Your task to perform on an android device: Do I have any events this weekend? Image 0: 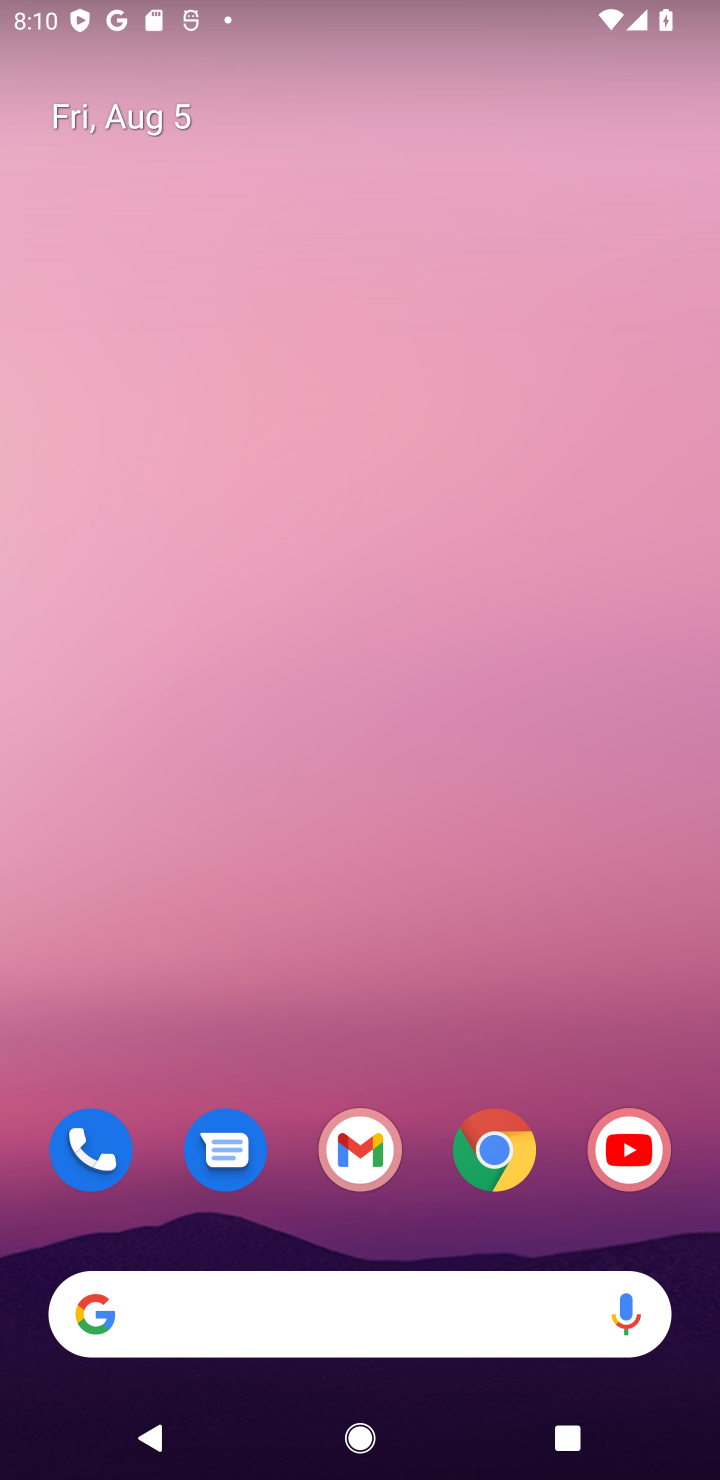
Step 0: press home button
Your task to perform on an android device: Do I have any events this weekend? Image 1: 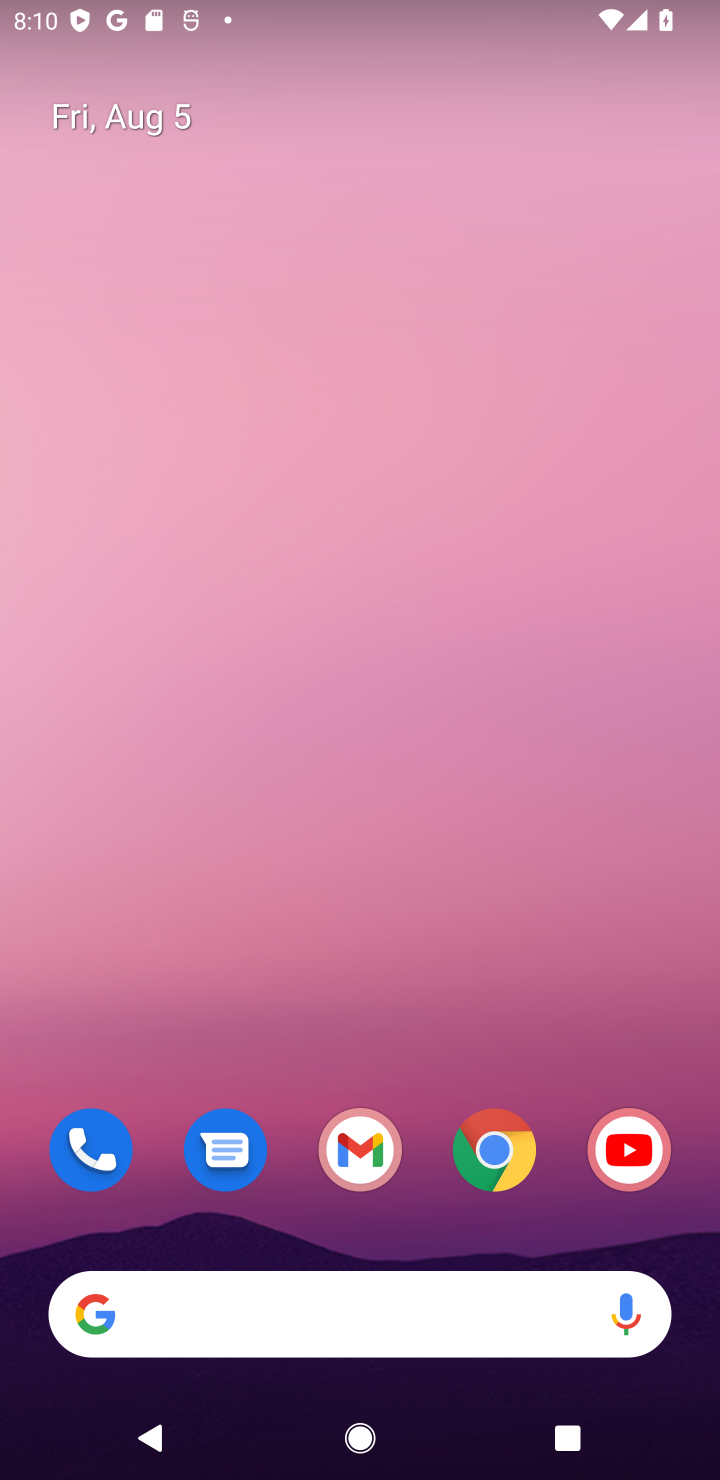
Step 1: drag from (428, 984) to (434, 257)
Your task to perform on an android device: Do I have any events this weekend? Image 2: 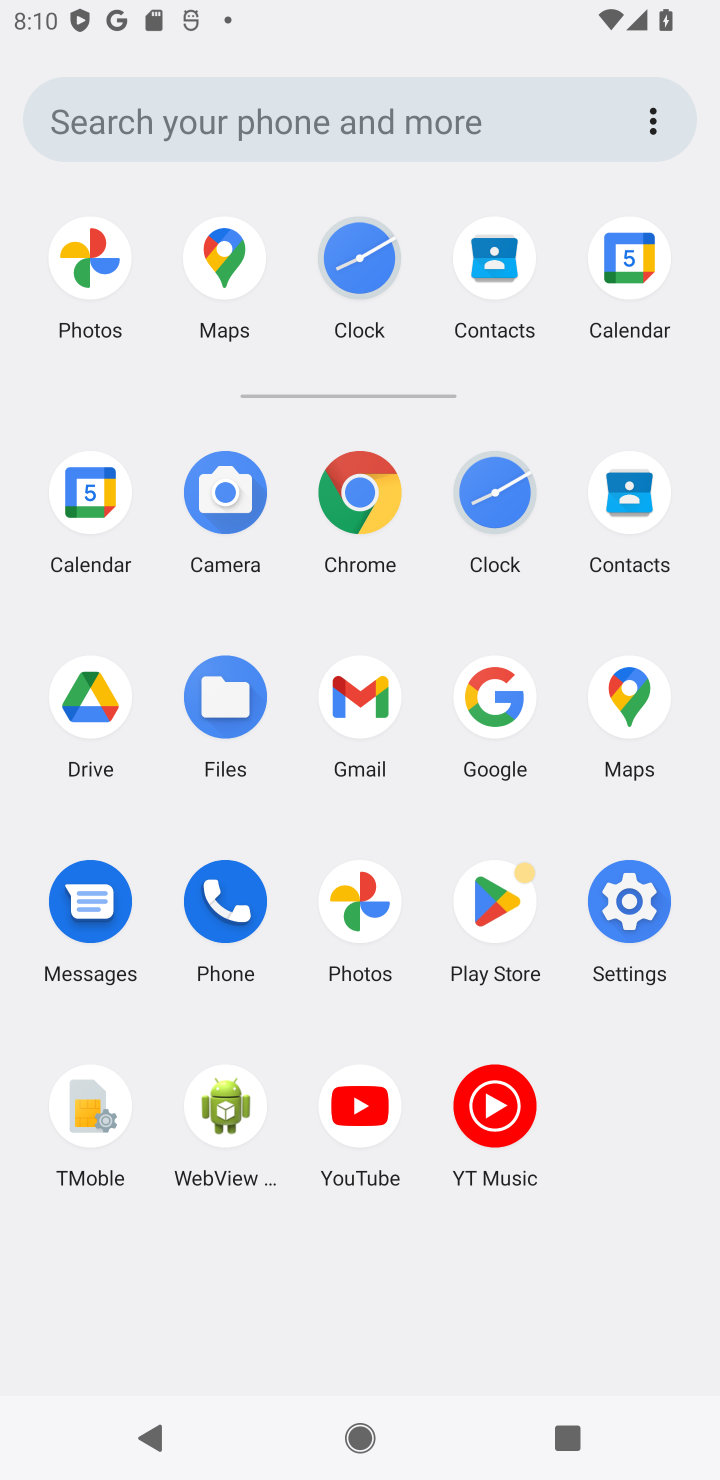
Step 2: click (107, 511)
Your task to perform on an android device: Do I have any events this weekend? Image 3: 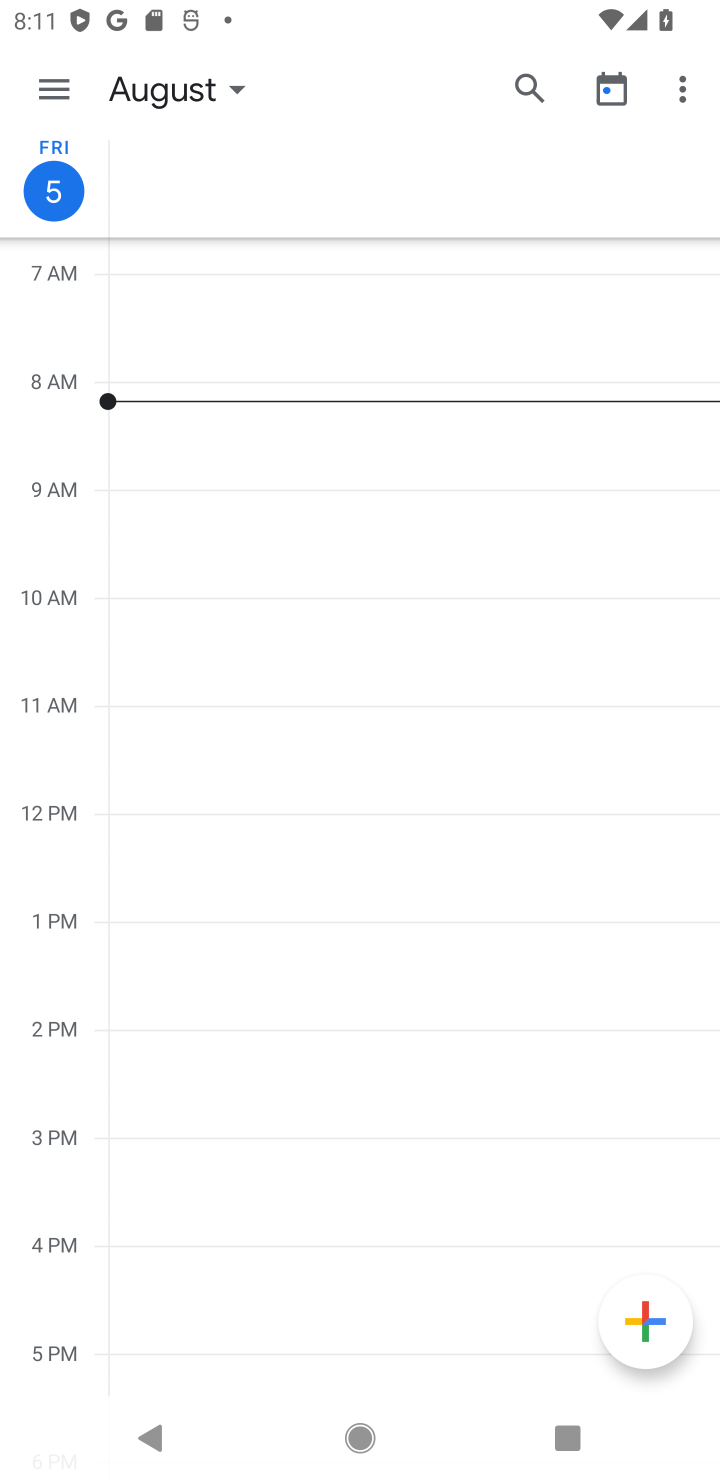
Step 3: click (52, 78)
Your task to perform on an android device: Do I have any events this weekend? Image 4: 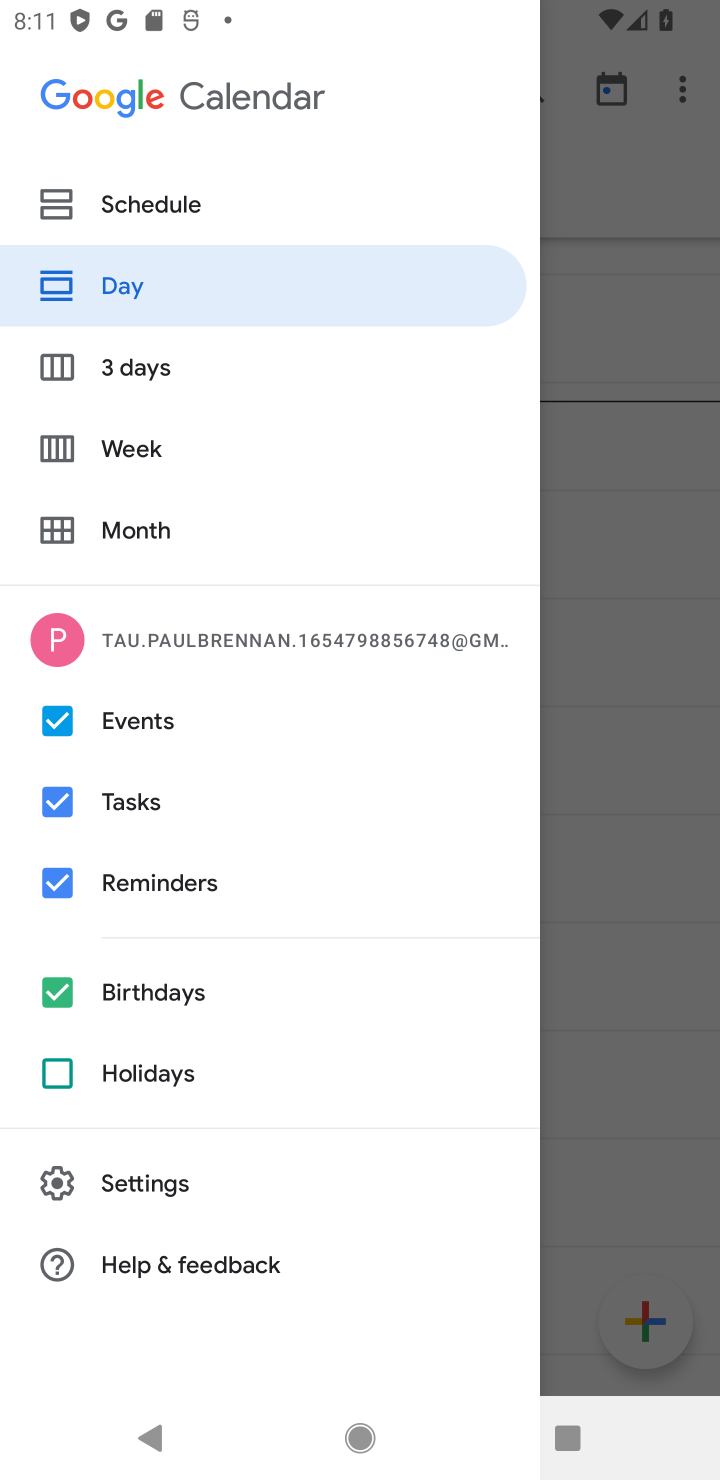
Step 4: click (210, 185)
Your task to perform on an android device: Do I have any events this weekend? Image 5: 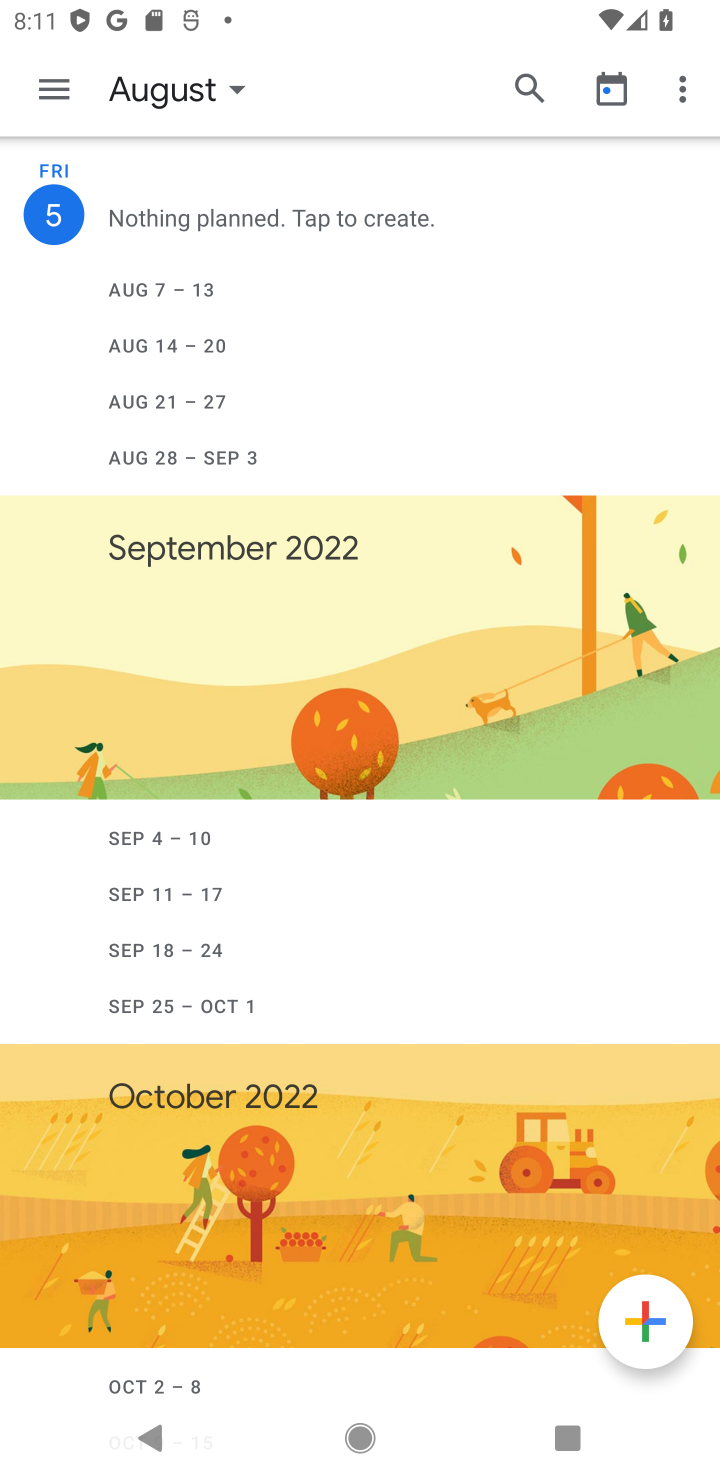
Step 5: task complete